Your task to perform on an android device: turn off priority inbox in the gmail app Image 0: 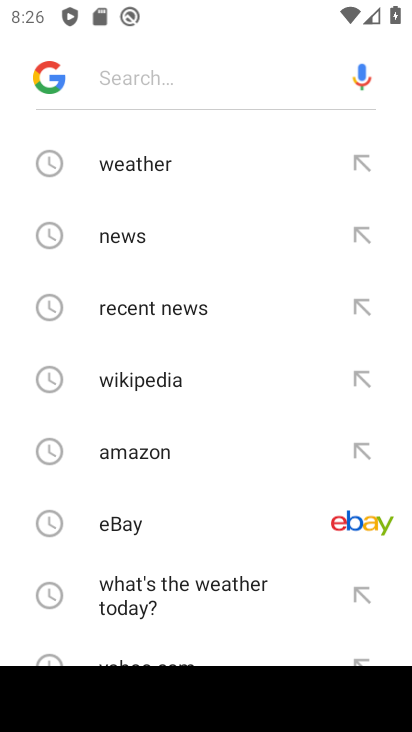
Step 0: press back button
Your task to perform on an android device: turn off priority inbox in the gmail app Image 1: 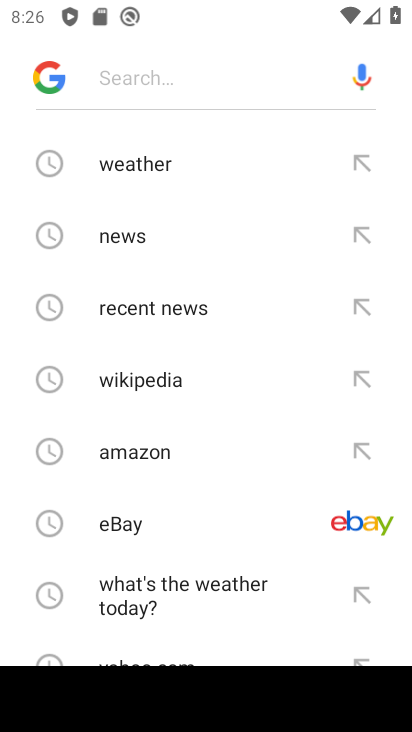
Step 1: press back button
Your task to perform on an android device: turn off priority inbox in the gmail app Image 2: 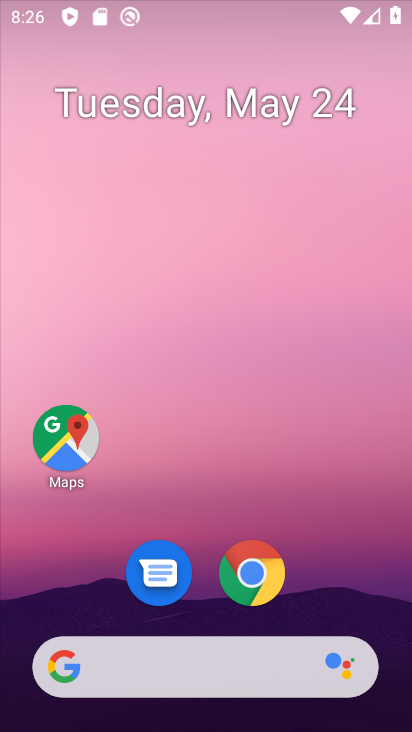
Step 2: press back button
Your task to perform on an android device: turn off priority inbox in the gmail app Image 3: 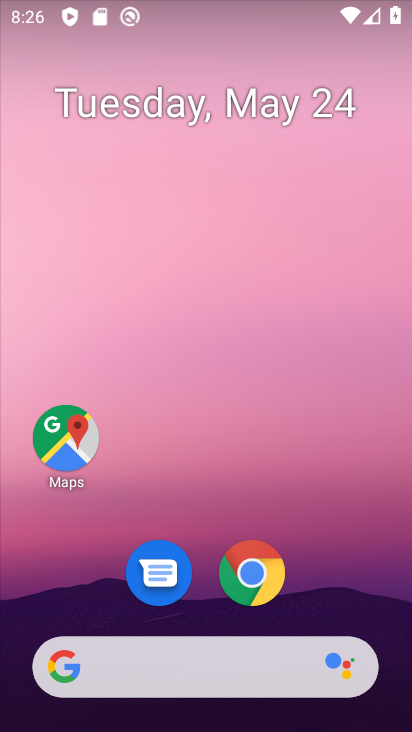
Step 3: press back button
Your task to perform on an android device: turn off priority inbox in the gmail app Image 4: 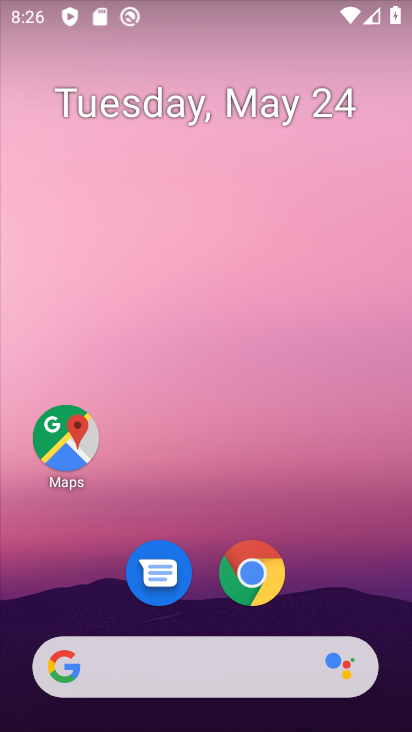
Step 4: click (257, 4)
Your task to perform on an android device: turn off priority inbox in the gmail app Image 5: 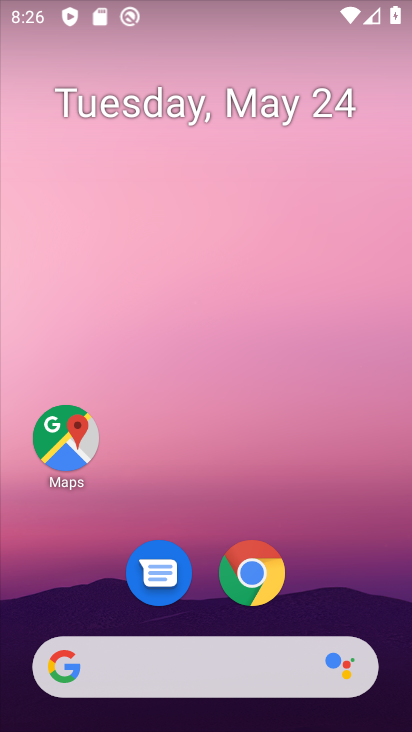
Step 5: drag from (267, 667) to (206, 144)
Your task to perform on an android device: turn off priority inbox in the gmail app Image 6: 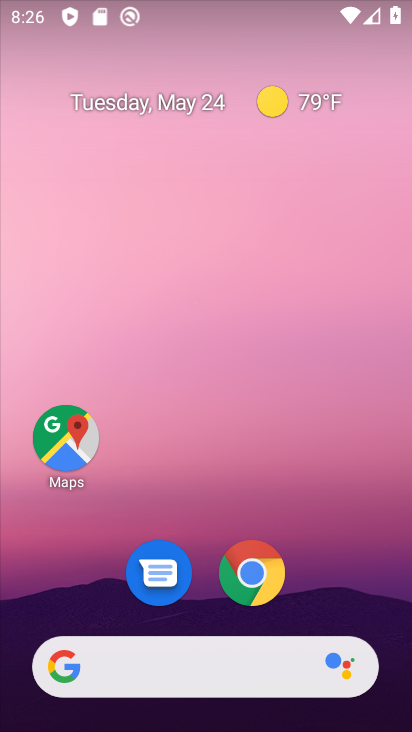
Step 6: drag from (320, 620) to (199, 14)
Your task to perform on an android device: turn off priority inbox in the gmail app Image 7: 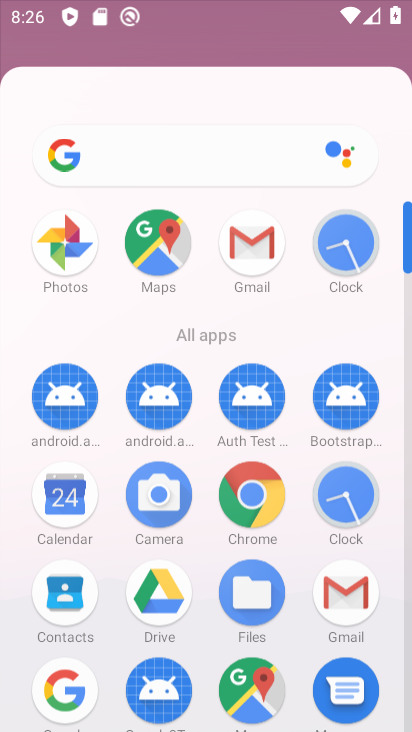
Step 7: drag from (279, 595) to (188, 1)
Your task to perform on an android device: turn off priority inbox in the gmail app Image 8: 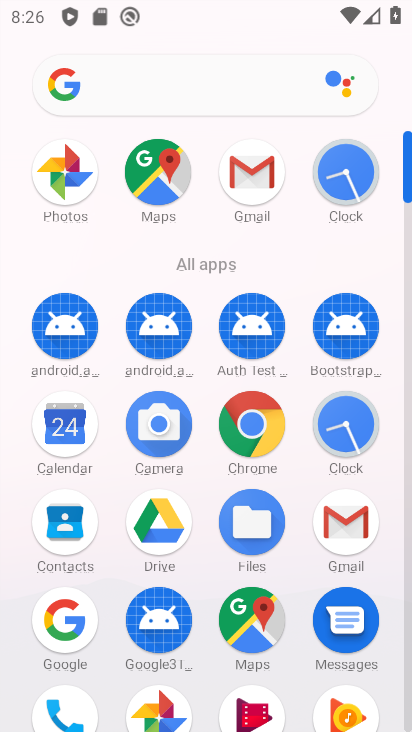
Step 8: click (342, 509)
Your task to perform on an android device: turn off priority inbox in the gmail app Image 9: 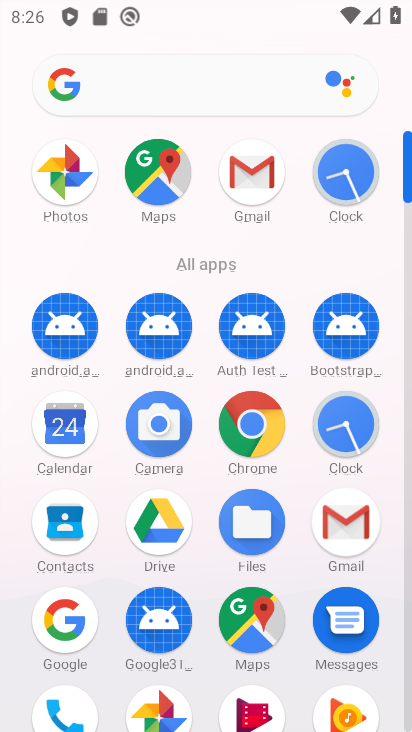
Step 9: click (344, 515)
Your task to perform on an android device: turn off priority inbox in the gmail app Image 10: 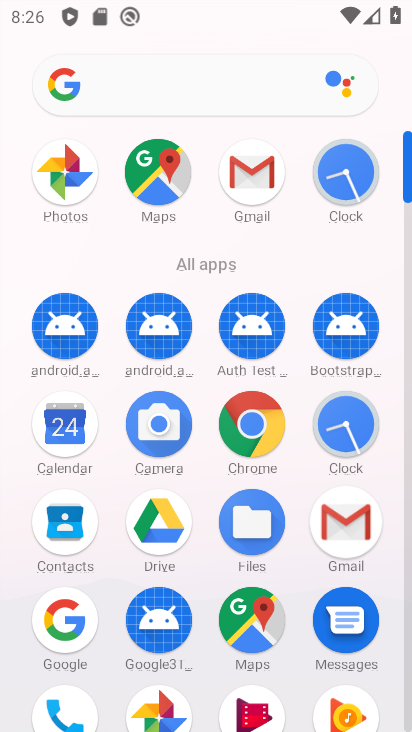
Step 10: click (344, 515)
Your task to perform on an android device: turn off priority inbox in the gmail app Image 11: 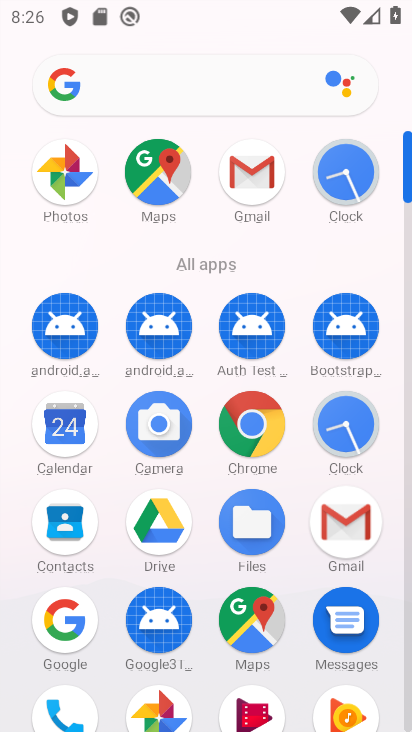
Step 11: click (353, 528)
Your task to perform on an android device: turn off priority inbox in the gmail app Image 12: 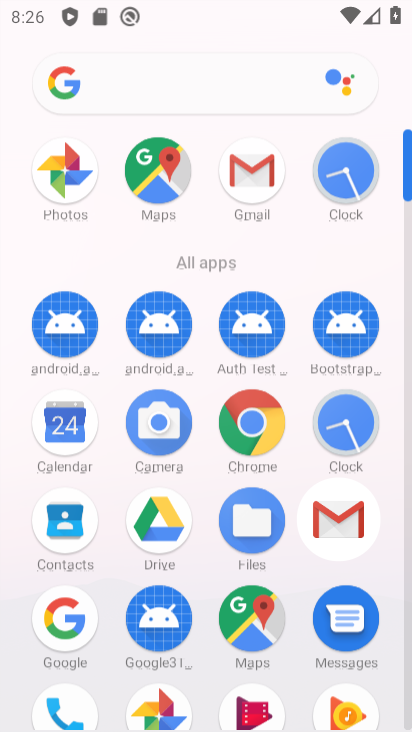
Step 12: click (356, 535)
Your task to perform on an android device: turn off priority inbox in the gmail app Image 13: 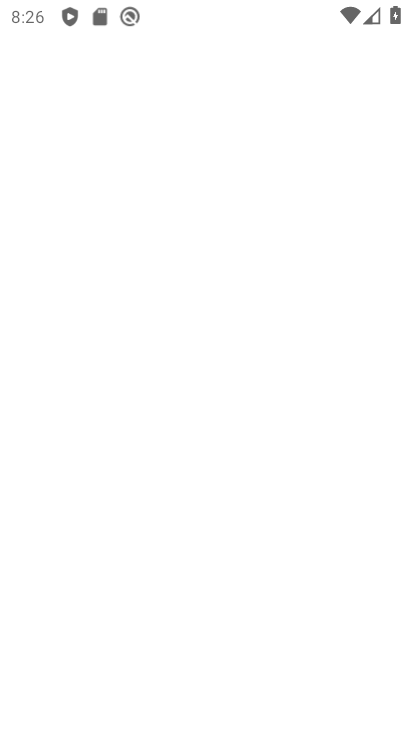
Step 13: click (354, 531)
Your task to perform on an android device: turn off priority inbox in the gmail app Image 14: 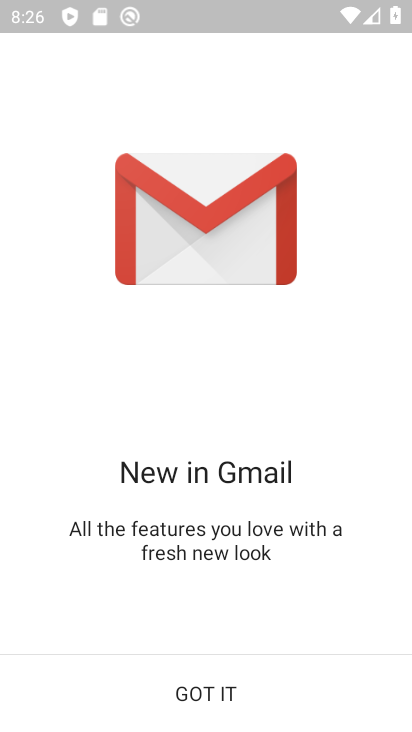
Step 14: click (208, 693)
Your task to perform on an android device: turn off priority inbox in the gmail app Image 15: 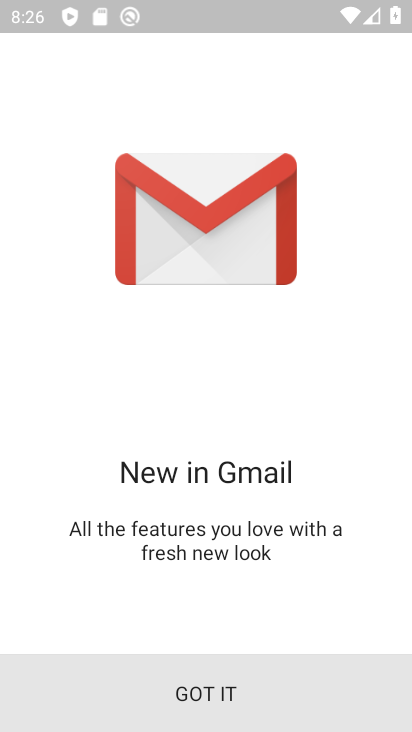
Step 15: click (209, 692)
Your task to perform on an android device: turn off priority inbox in the gmail app Image 16: 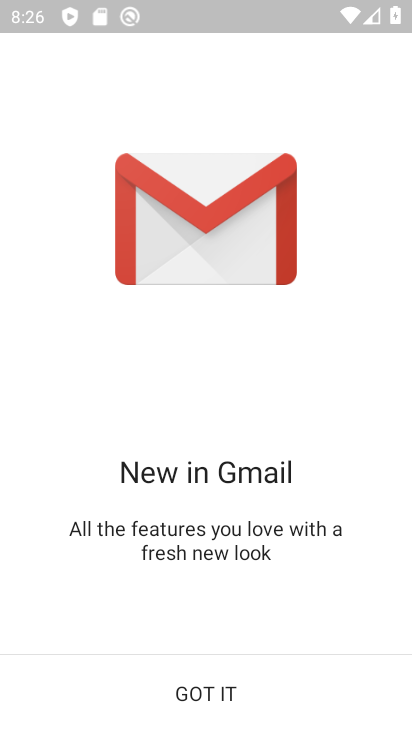
Step 16: click (206, 689)
Your task to perform on an android device: turn off priority inbox in the gmail app Image 17: 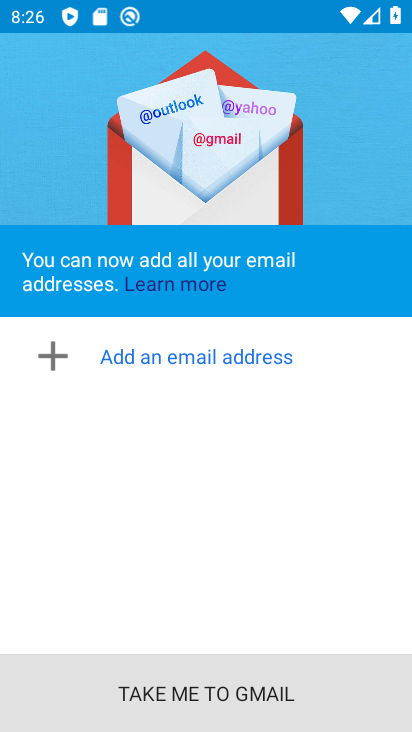
Step 17: click (221, 682)
Your task to perform on an android device: turn off priority inbox in the gmail app Image 18: 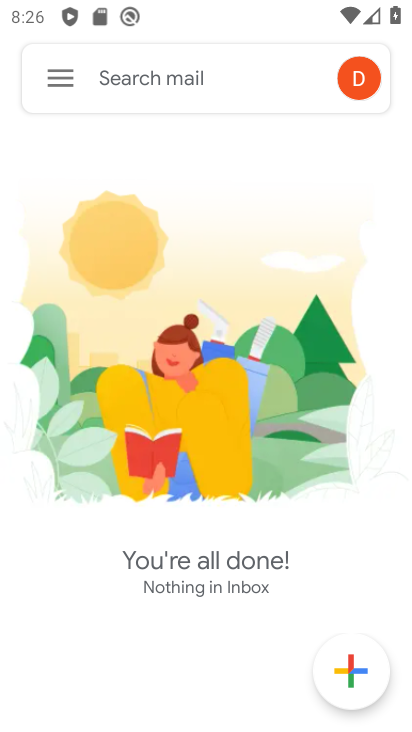
Step 18: drag from (62, 75) to (127, 505)
Your task to perform on an android device: turn off priority inbox in the gmail app Image 19: 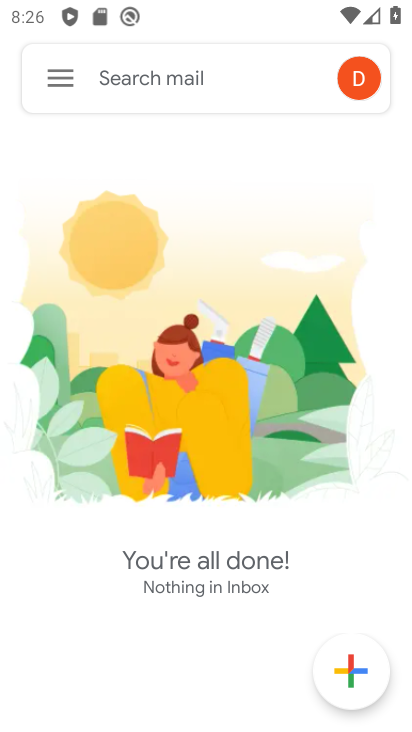
Step 19: click (59, 65)
Your task to perform on an android device: turn off priority inbox in the gmail app Image 20: 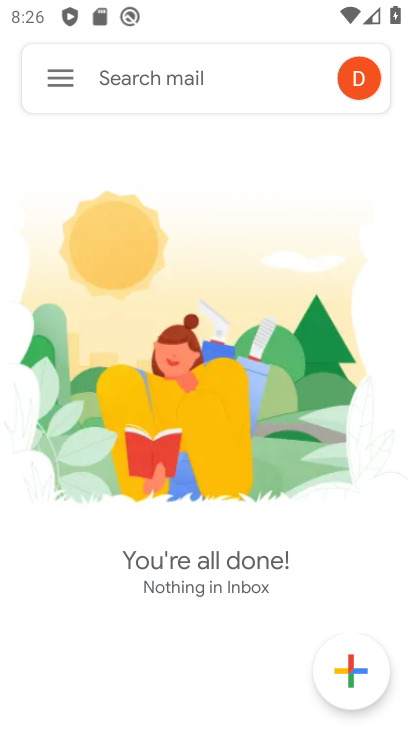
Step 20: drag from (69, 85) to (158, 587)
Your task to perform on an android device: turn off priority inbox in the gmail app Image 21: 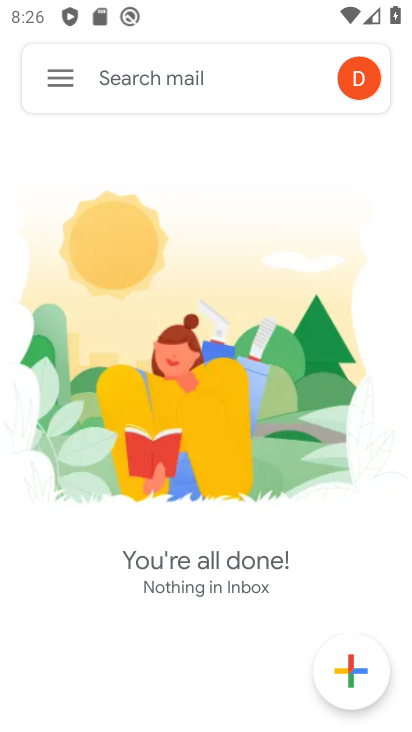
Step 21: click (60, 77)
Your task to perform on an android device: turn off priority inbox in the gmail app Image 22: 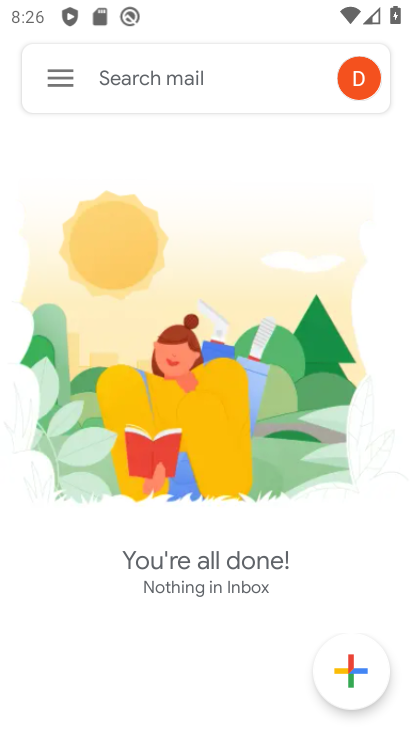
Step 22: click (60, 77)
Your task to perform on an android device: turn off priority inbox in the gmail app Image 23: 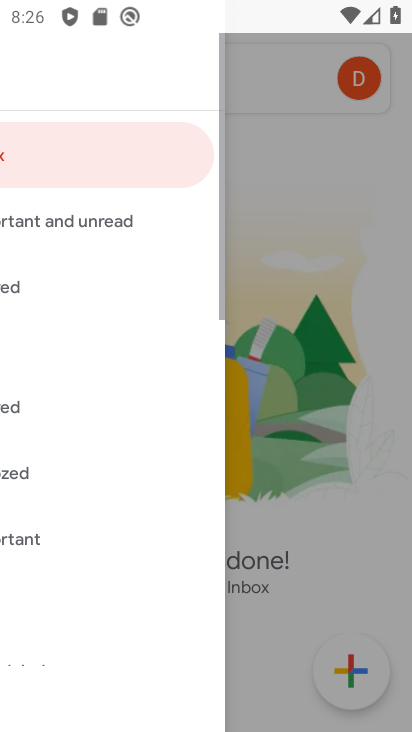
Step 23: click (56, 76)
Your task to perform on an android device: turn off priority inbox in the gmail app Image 24: 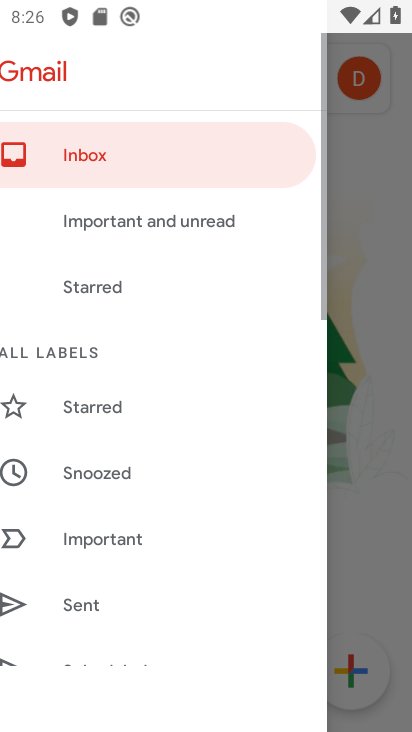
Step 24: click (58, 76)
Your task to perform on an android device: turn off priority inbox in the gmail app Image 25: 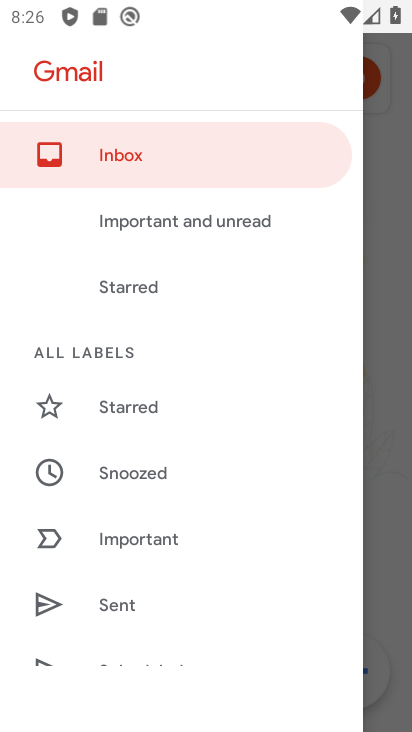
Step 25: drag from (163, 557) to (150, 127)
Your task to perform on an android device: turn off priority inbox in the gmail app Image 26: 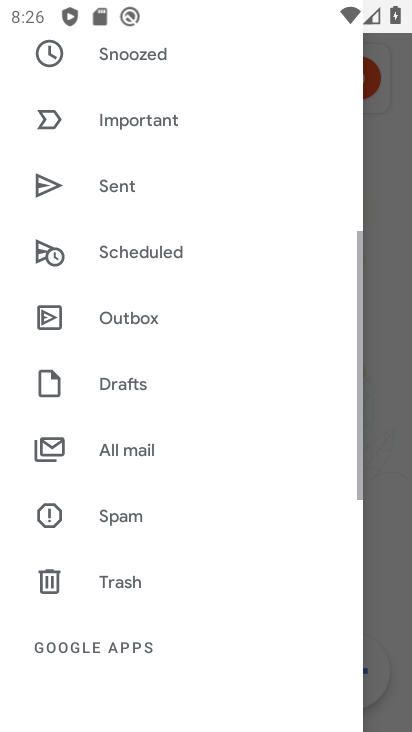
Step 26: drag from (149, 400) to (178, 37)
Your task to perform on an android device: turn off priority inbox in the gmail app Image 27: 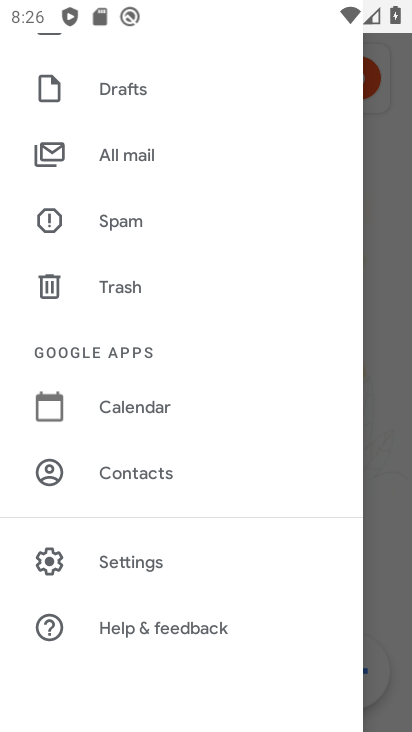
Step 27: click (130, 563)
Your task to perform on an android device: turn off priority inbox in the gmail app Image 28: 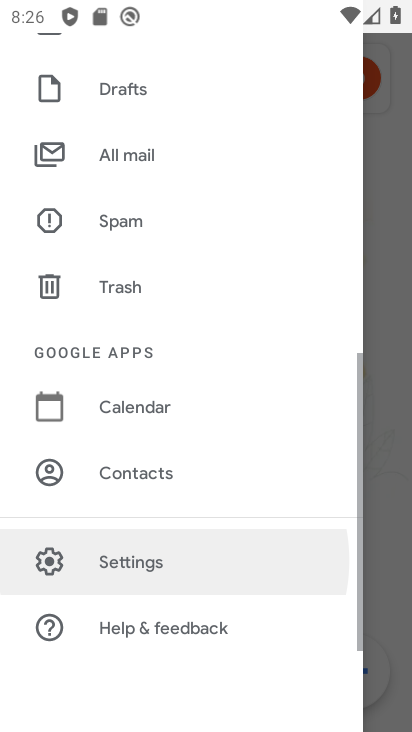
Step 28: click (131, 564)
Your task to perform on an android device: turn off priority inbox in the gmail app Image 29: 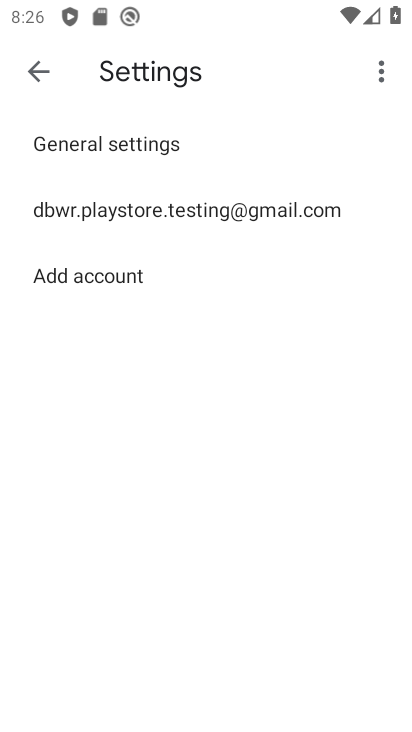
Step 29: click (83, 211)
Your task to perform on an android device: turn off priority inbox in the gmail app Image 30: 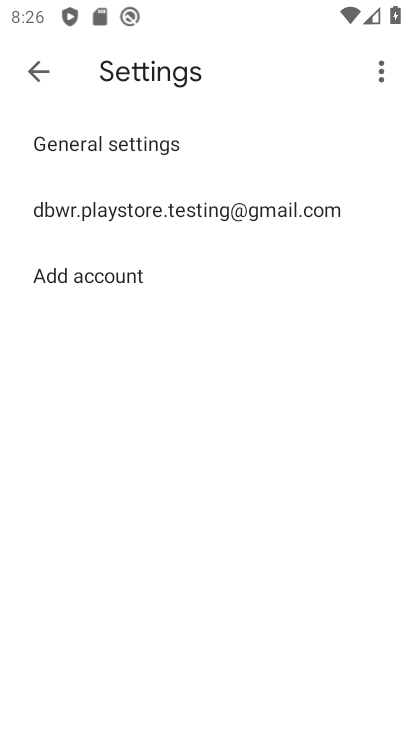
Step 30: click (84, 210)
Your task to perform on an android device: turn off priority inbox in the gmail app Image 31: 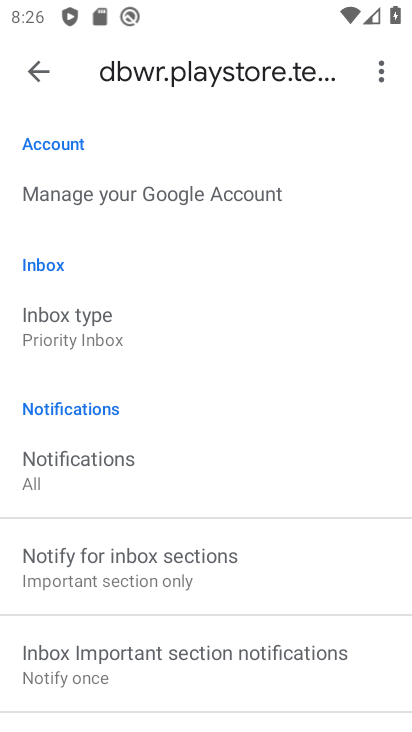
Step 31: click (49, 319)
Your task to perform on an android device: turn off priority inbox in the gmail app Image 32: 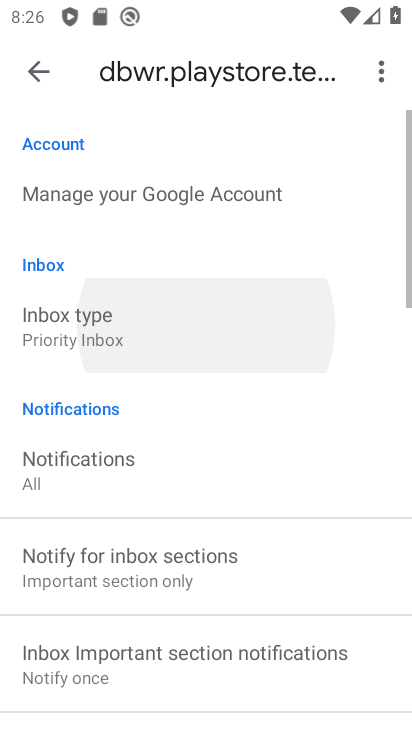
Step 32: click (49, 319)
Your task to perform on an android device: turn off priority inbox in the gmail app Image 33: 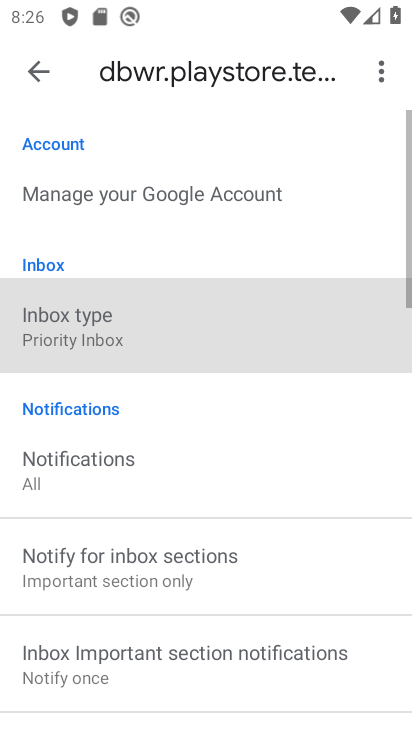
Step 33: click (49, 319)
Your task to perform on an android device: turn off priority inbox in the gmail app Image 34: 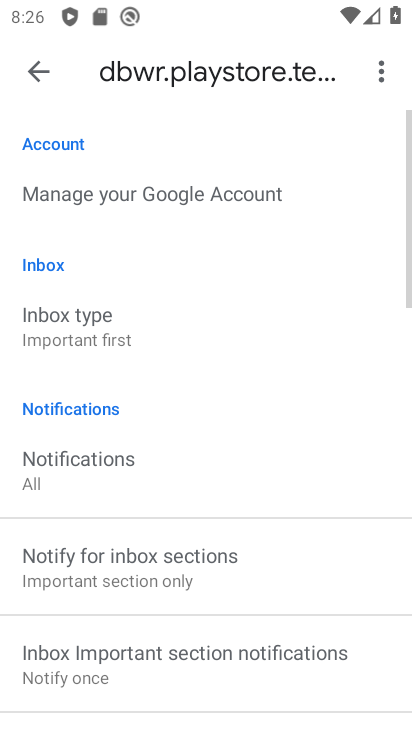
Step 34: click (64, 316)
Your task to perform on an android device: turn off priority inbox in the gmail app Image 35: 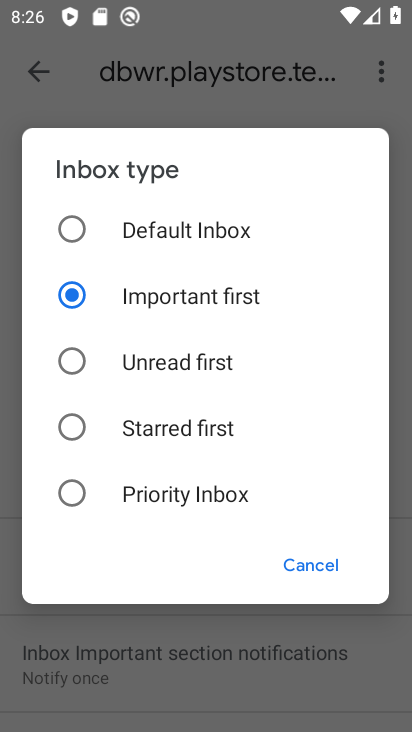
Step 35: task complete